Your task to perform on an android device: empty trash in the gmail app Image 0: 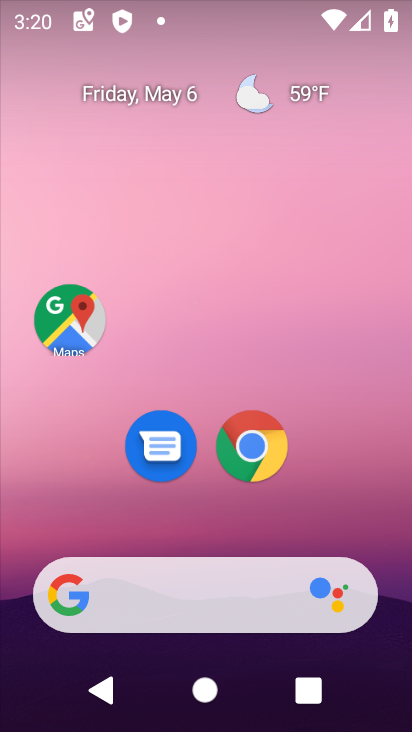
Step 0: drag from (321, 500) to (310, 102)
Your task to perform on an android device: empty trash in the gmail app Image 1: 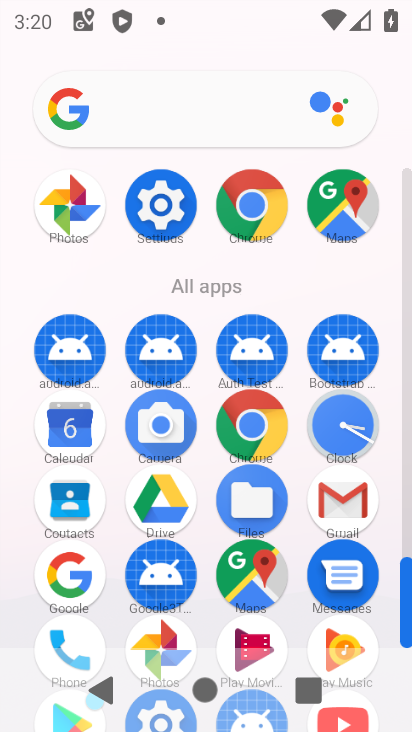
Step 1: click (343, 504)
Your task to perform on an android device: empty trash in the gmail app Image 2: 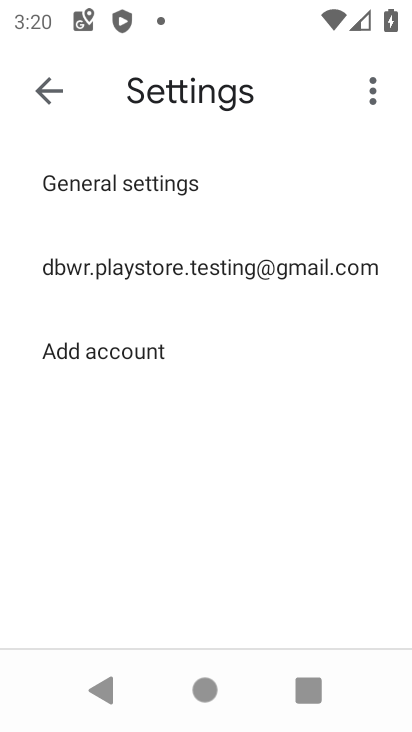
Step 2: press back button
Your task to perform on an android device: empty trash in the gmail app Image 3: 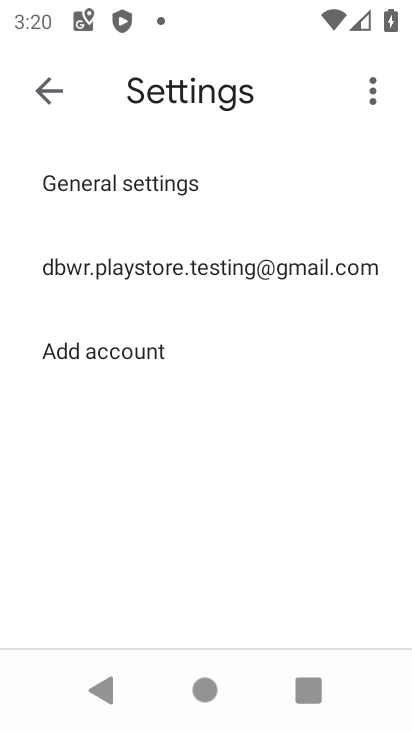
Step 3: press back button
Your task to perform on an android device: empty trash in the gmail app Image 4: 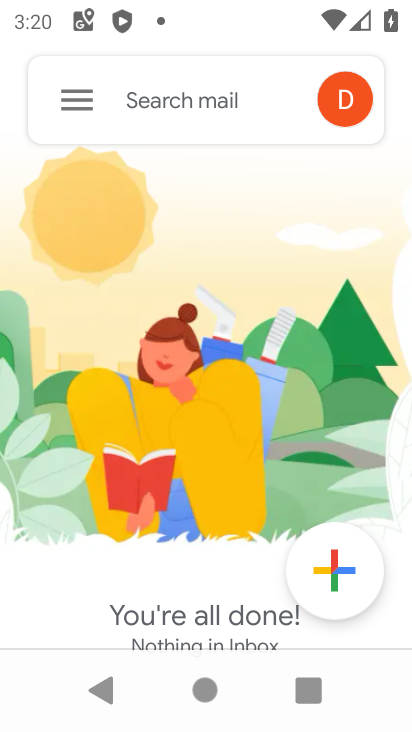
Step 4: click (79, 111)
Your task to perform on an android device: empty trash in the gmail app Image 5: 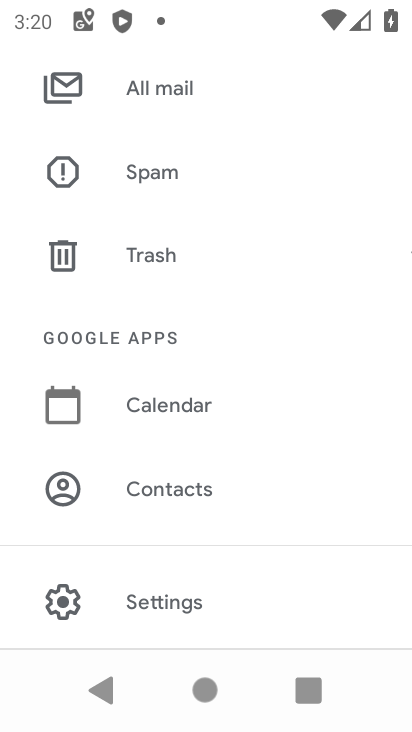
Step 5: click (153, 262)
Your task to perform on an android device: empty trash in the gmail app Image 6: 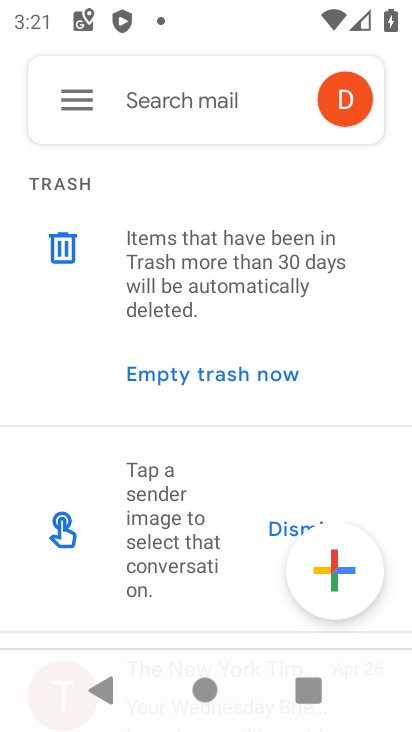
Step 6: click (167, 376)
Your task to perform on an android device: empty trash in the gmail app Image 7: 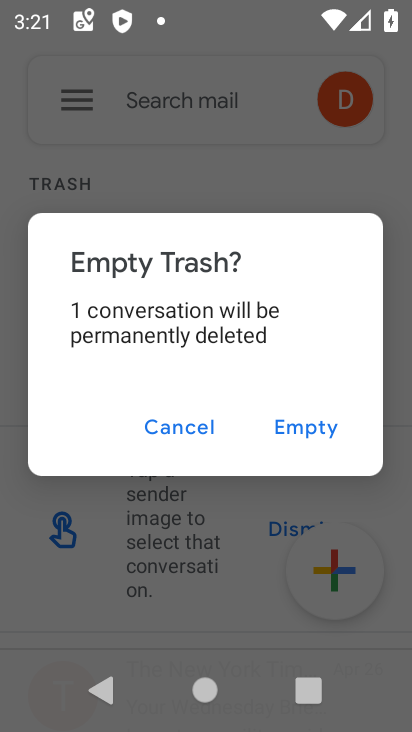
Step 7: click (285, 433)
Your task to perform on an android device: empty trash in the gmail app Image 8: 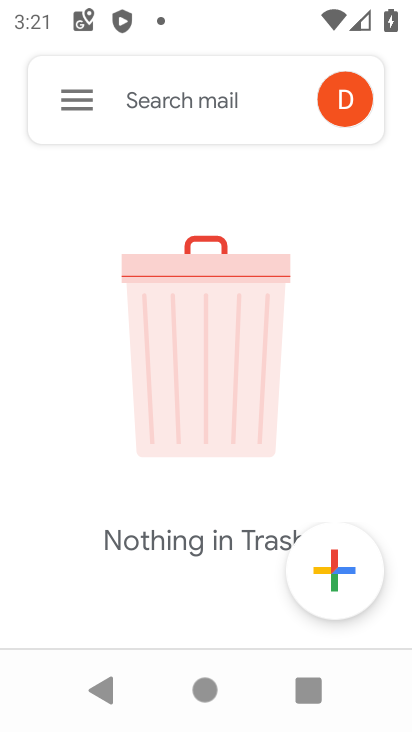
Step 8: task complete